Your task to perform on an android device: choose inbox layout in the gmail app Image 0: 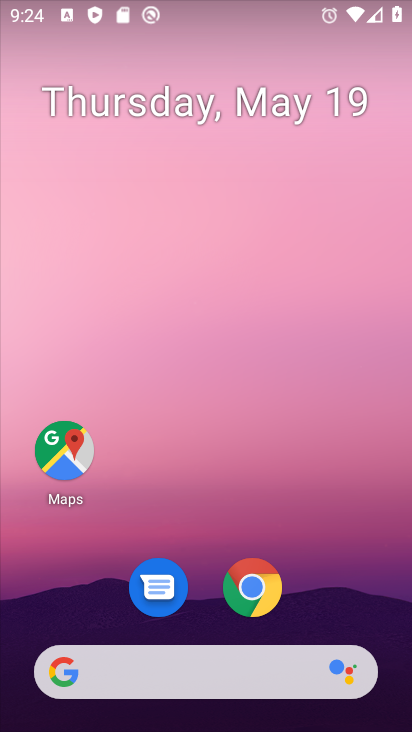
Step 0: drag from (391, 568) to (329, 2)
Your task to perform on an android device: choose inbox layout in the gmail app Image 1: 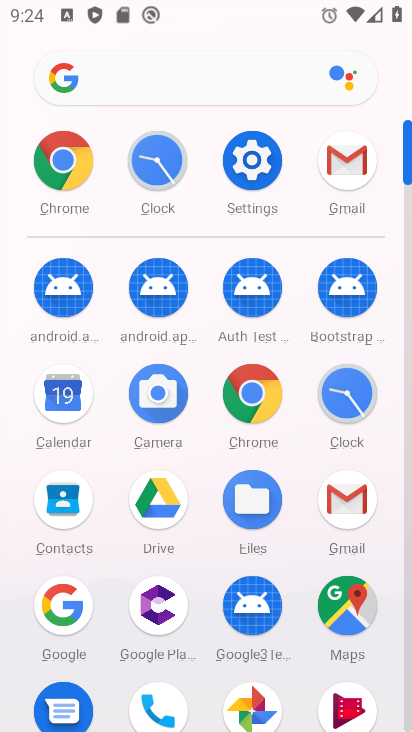
Step 1: click (335, 163)
Your task to perform on an android device: choose inbox layout in the gmail app Image 2: 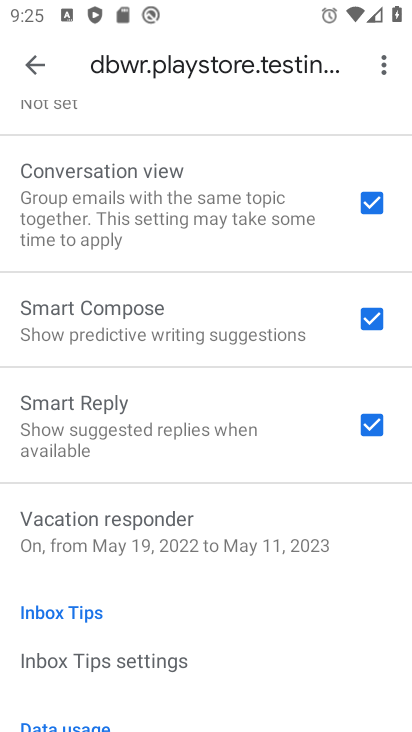
Step 2: drag from (151, 242) to (182, 621)
Your task to perform on an android device: choose inbox layout in the gmail app Image 3: 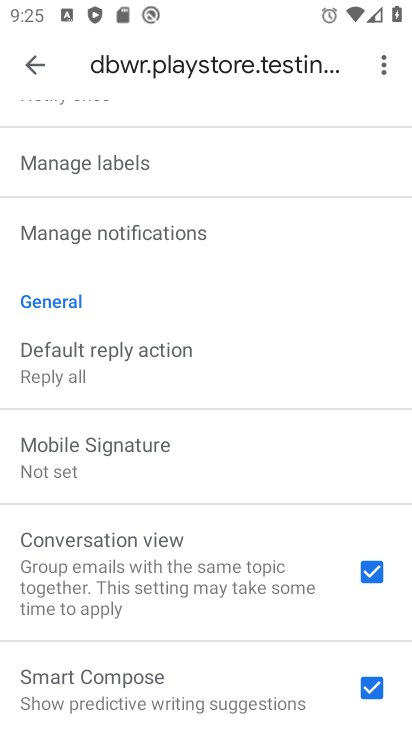
Step 3: drag from (137, 396) to (175, 620)
Your task to perform on an android device: choose inbox layout in the gmail app Image 4: 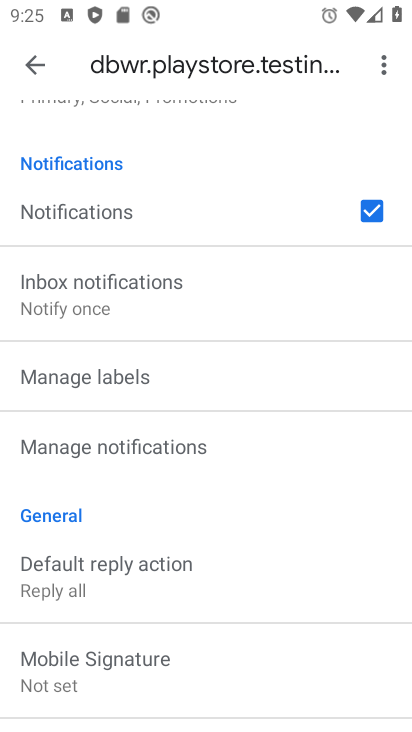
Step 4: drag from (135, 298) to (189, 665)
Your task to perform on an android device: choose inbox layout in the gmail app Image 5: 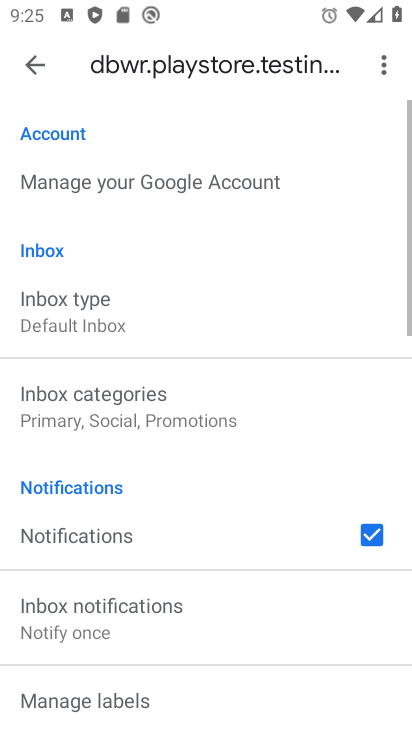
Step 5: click (100, 311)
Your task to perform on an android device: choose inbox layout in the gmail app Image 6: 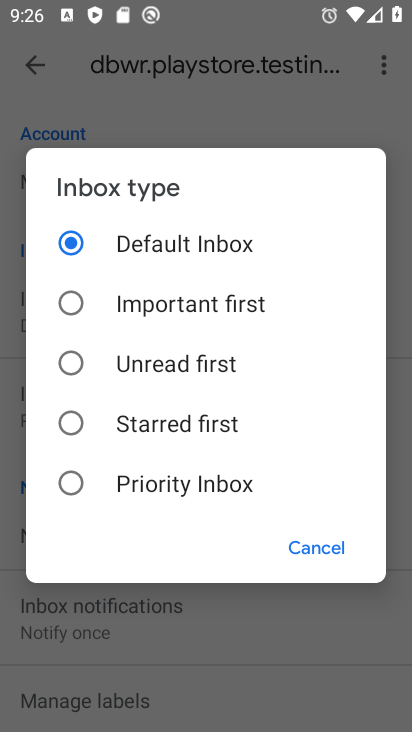
Step 6: click (67, 386)
Your task to perform on an android device: choose inbox layout in the gmail app Image 7: 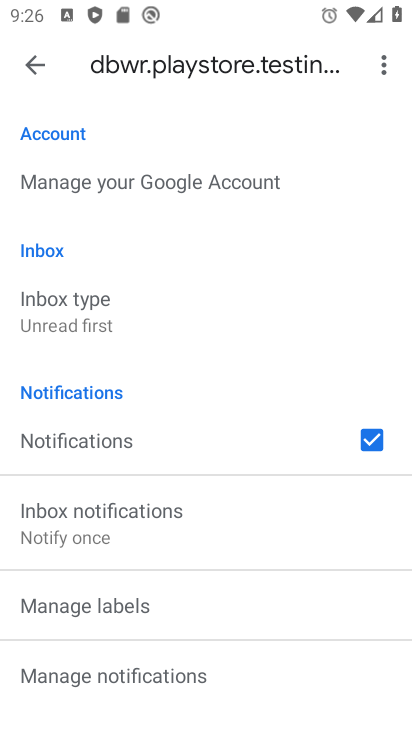
Step 7: task complete